Your task to perform on an android device: toggle location history Image 0: 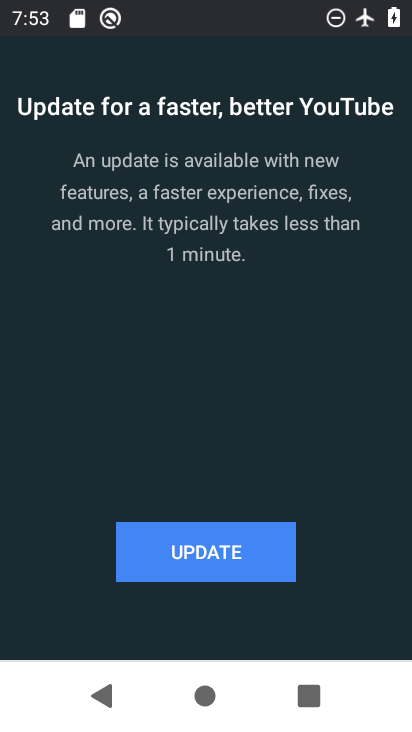
Step 0: press home button
Your task to perform on an android device: toggle location history Image 1: 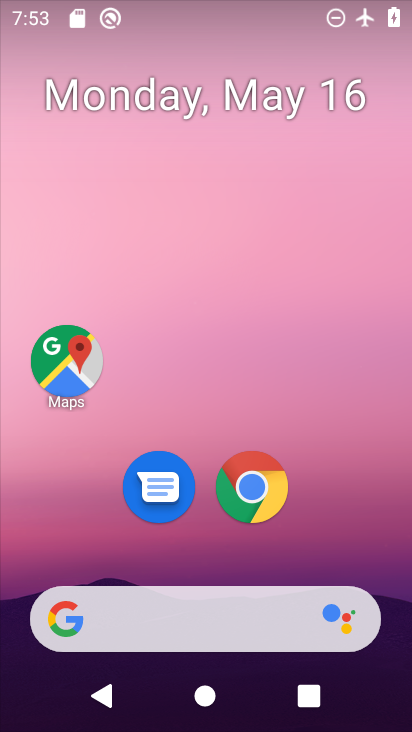
Step 1: drag from (292, 549) to (276, 64)
Your task to perform on an android device: toggle location history Image 2: 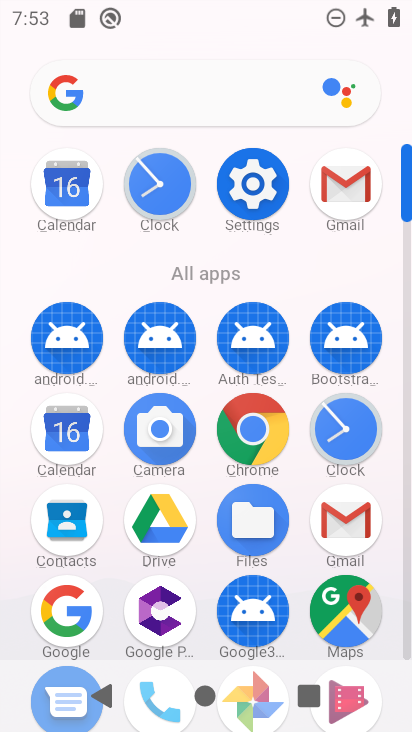
Step 2: click (264, 170)
Your task to perform on an android device: toggle location history Image 3: 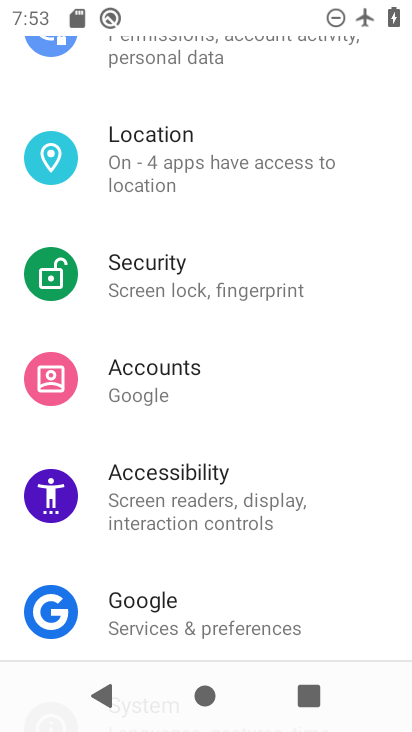
Step 3: click (251, 148)
Your task to perform on an android device: toggle location history Image 4: 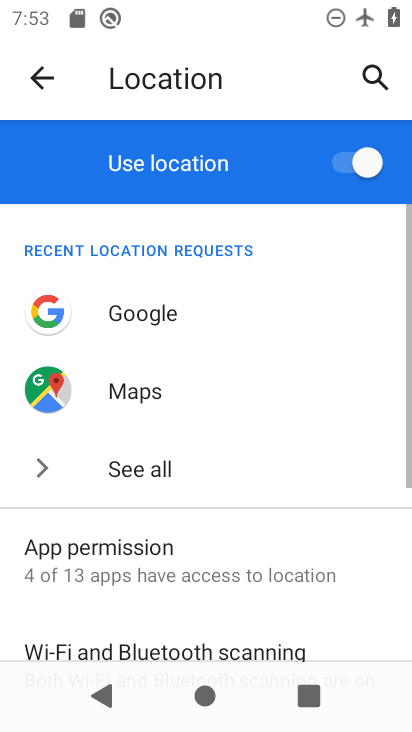
Step 4: drag from (222, 570) to (241, 302)
Your task to perform on an android device: toggle location history Image 5: 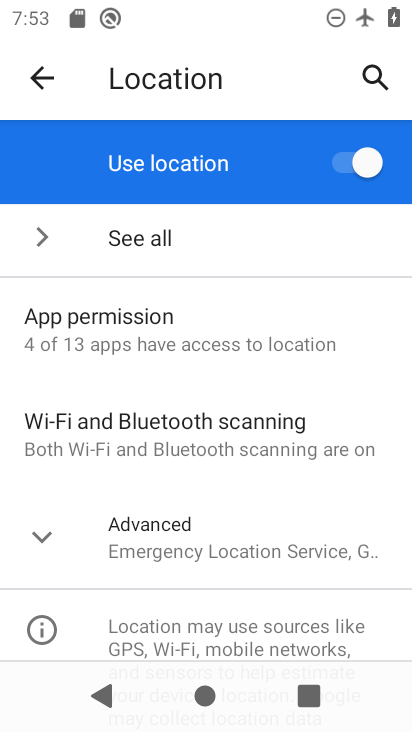
Step 5: click (38, 533)
Your task to perform on an android device: toggle location history Image 6: 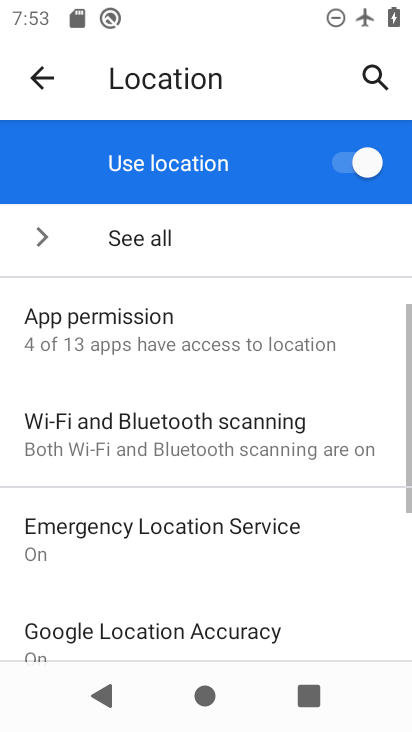
Step 6: drag from (165, 588) to (181, 315)
Your task to perform on an android device: toggle location history Image 7: 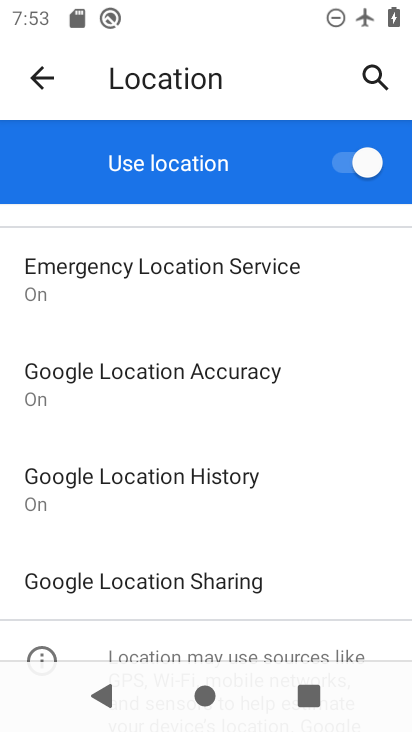
Step 7: click (151, 497)
Your task to perform on an android device: toggle location history Image 8: 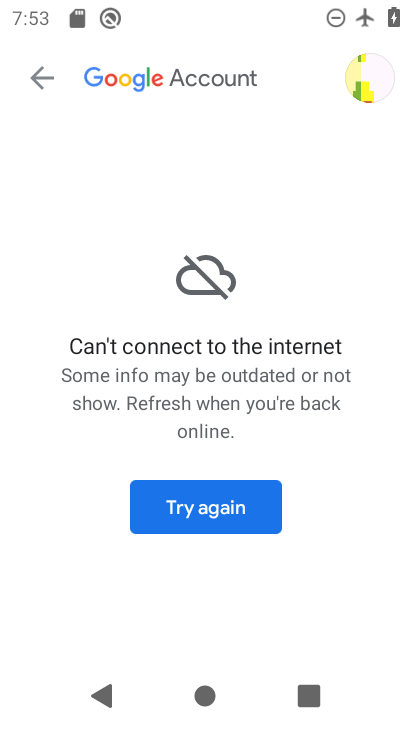
Step 8: click (242, 518)
Your task to perform on an android device: toggle location history Image 9: 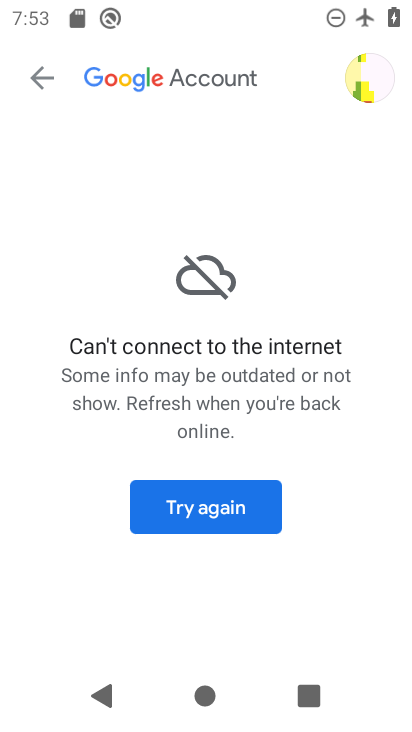
Step 9: task complete